Your task to perform on an android device: Open battery settings Image 0: 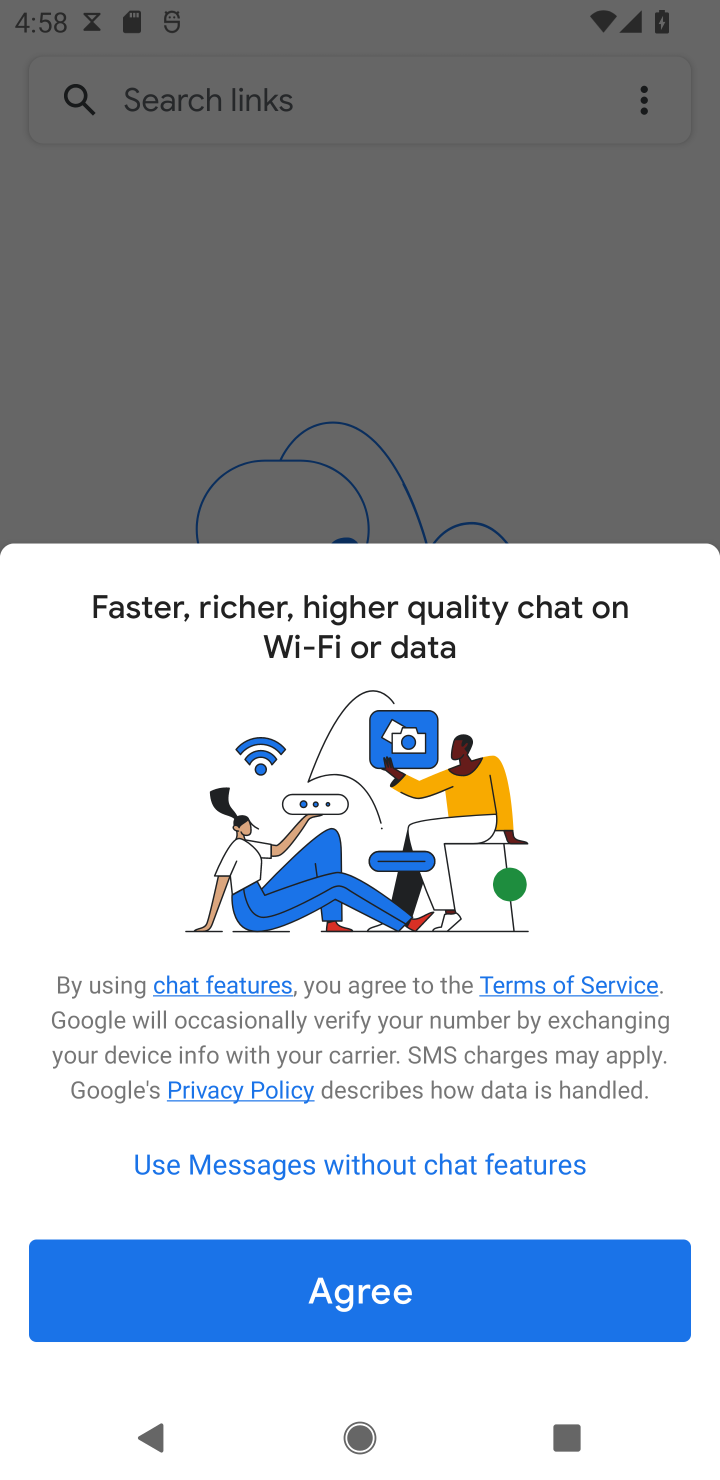
Step 0: press home button
Your task to perform on an android device: Open battery settings Image 1: 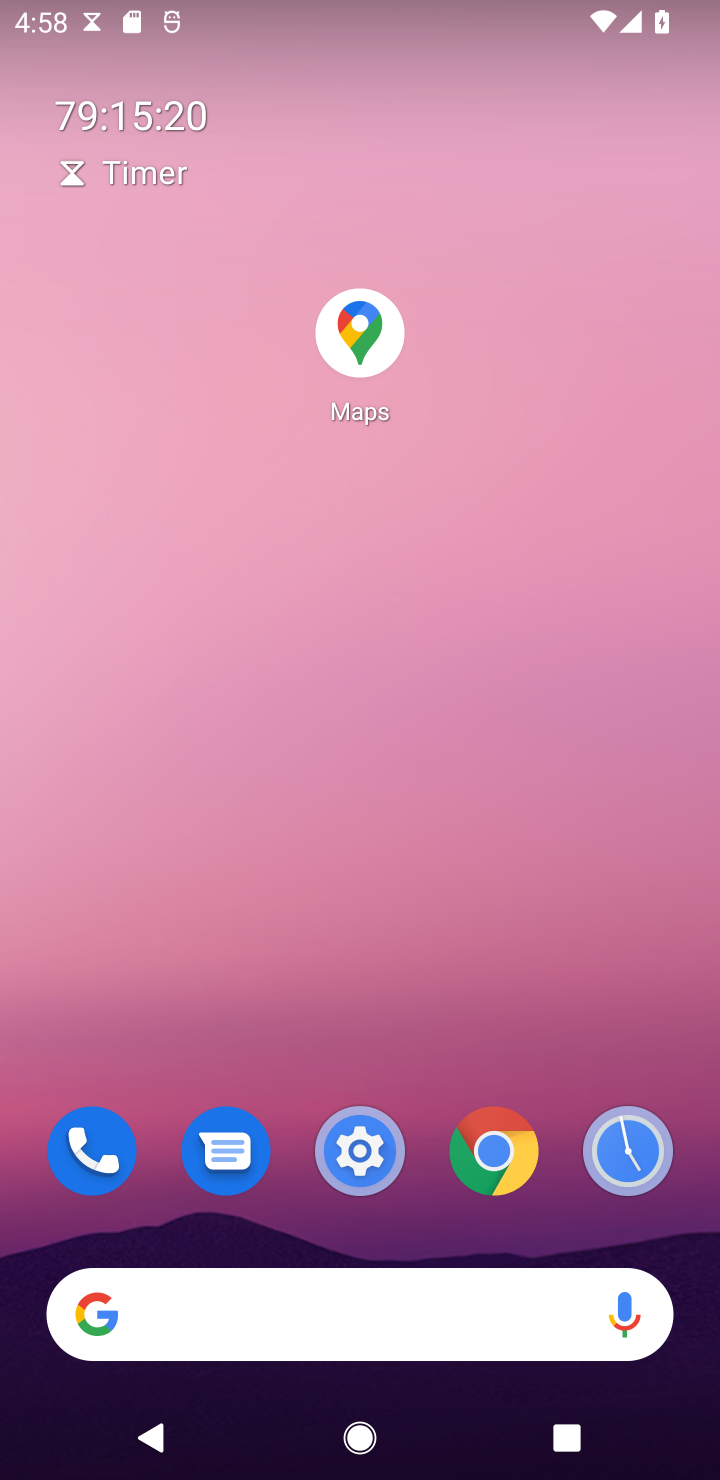
Step 1: drag from (260, 921) to (271, 348)
Your task to perform on an android device: Open battery settings Image 2: 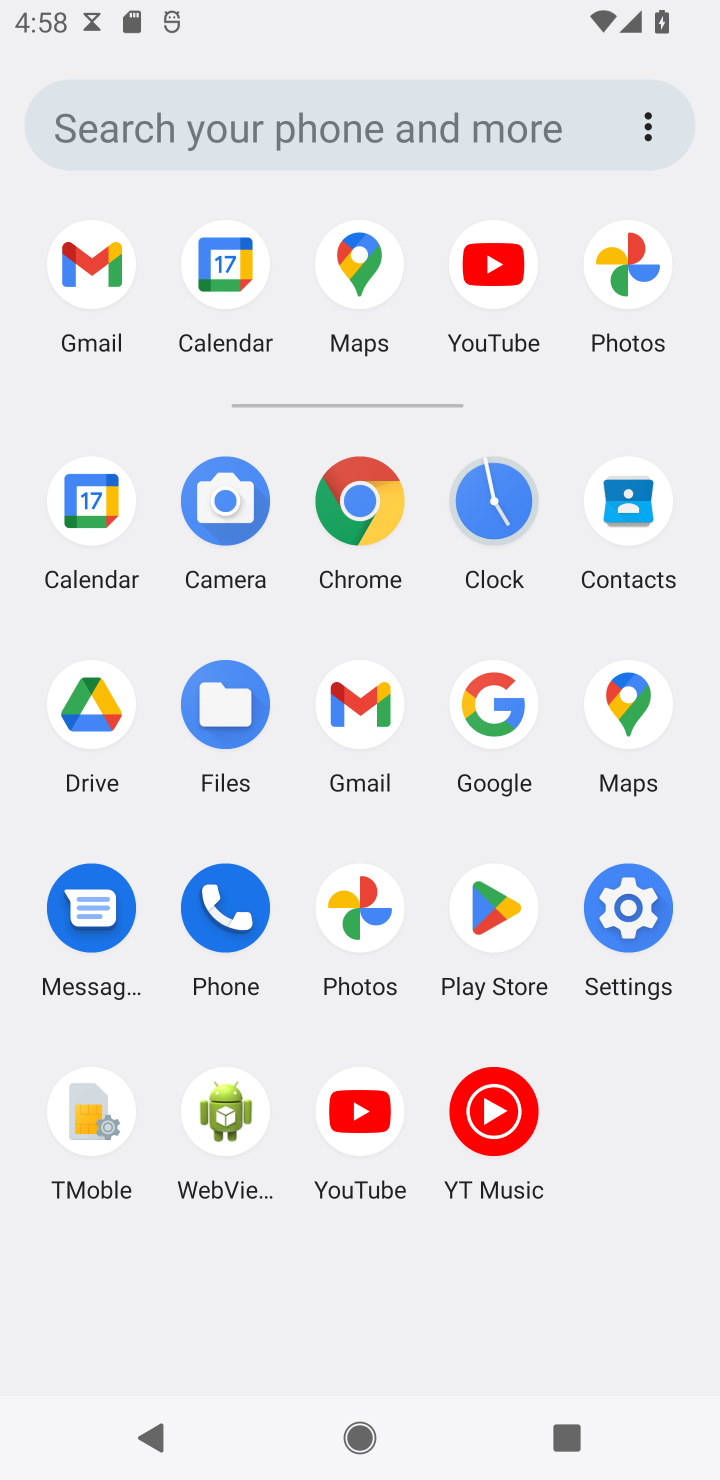
Step 2: click (627, 888)
Your task to perform on an android device: Open battery settings Image 3: 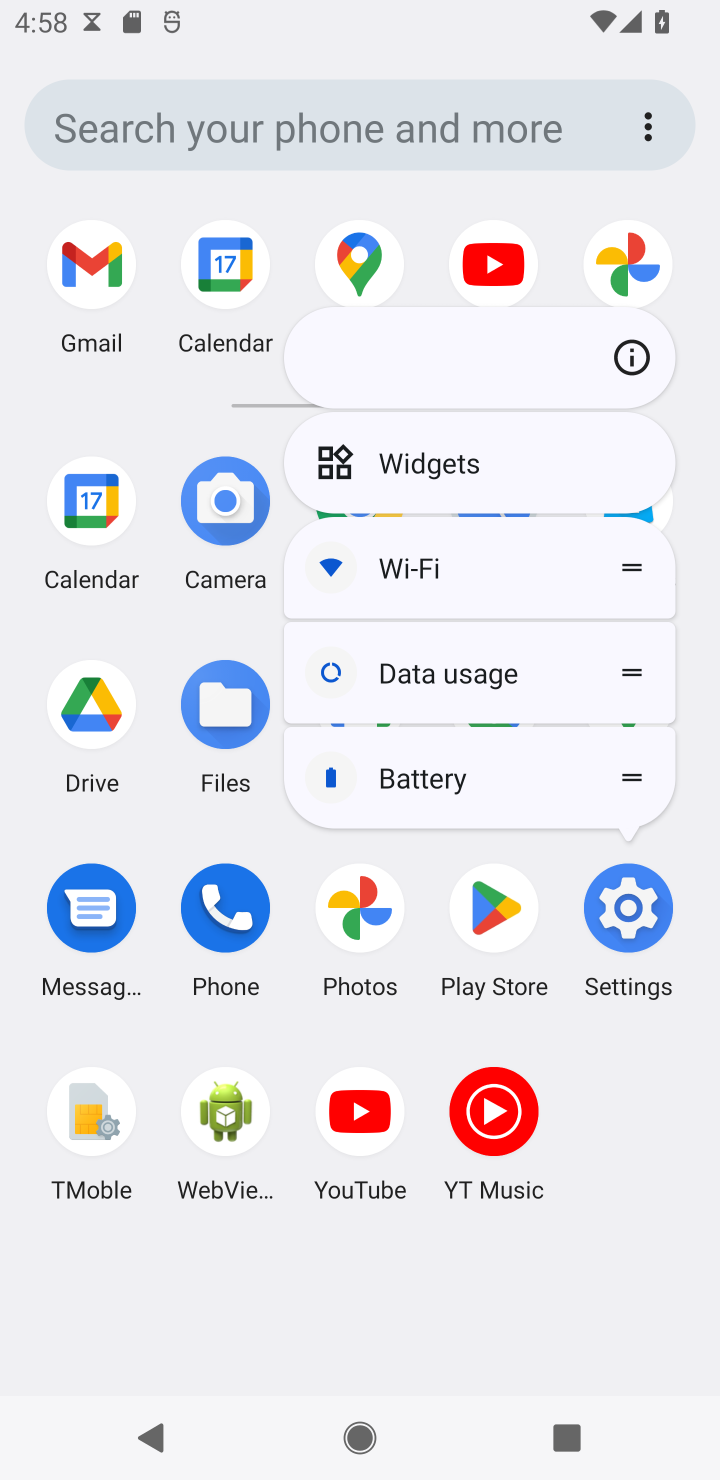
Step 3: click (636, 909)
Your task to perform on an android device: Open battery settings Image 4: 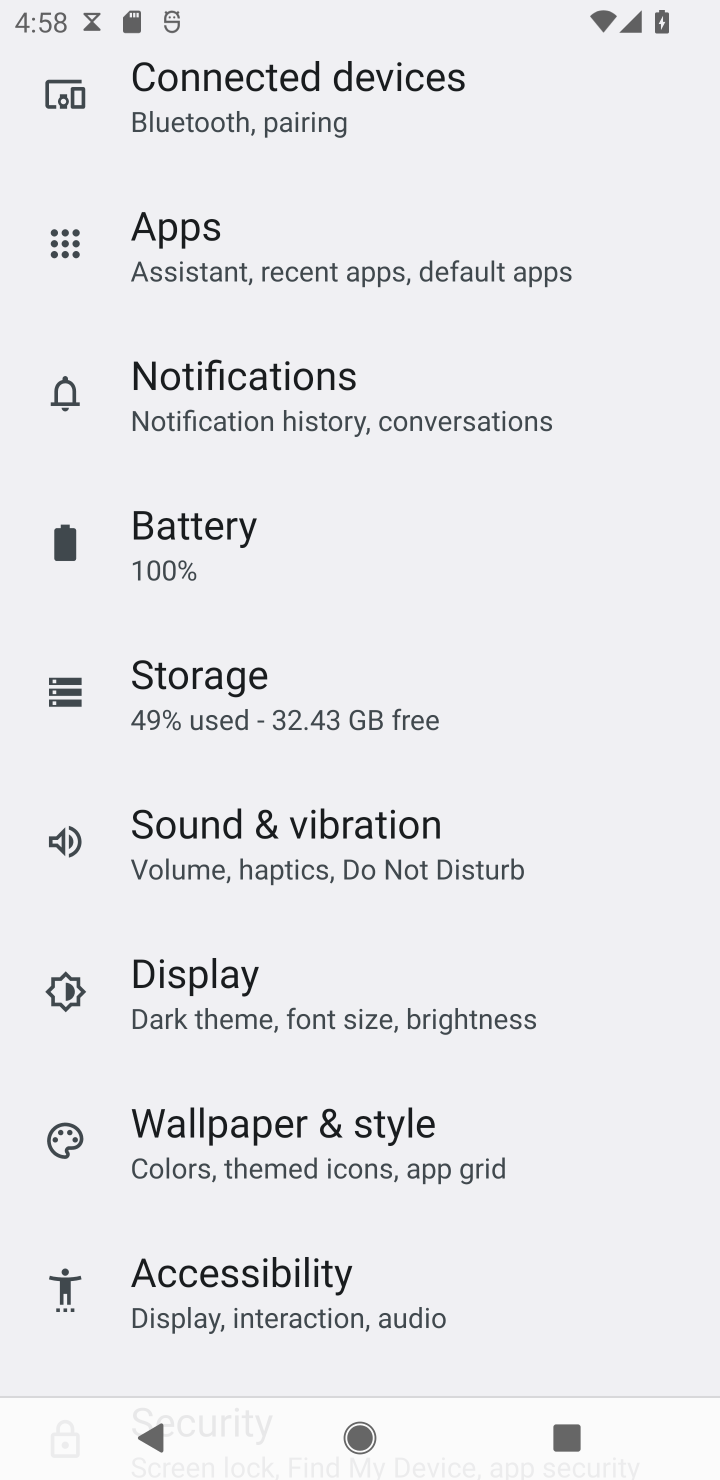
Step 4: click (205, 540)
Your task to perform on an android device: Open battery settings Image 5: 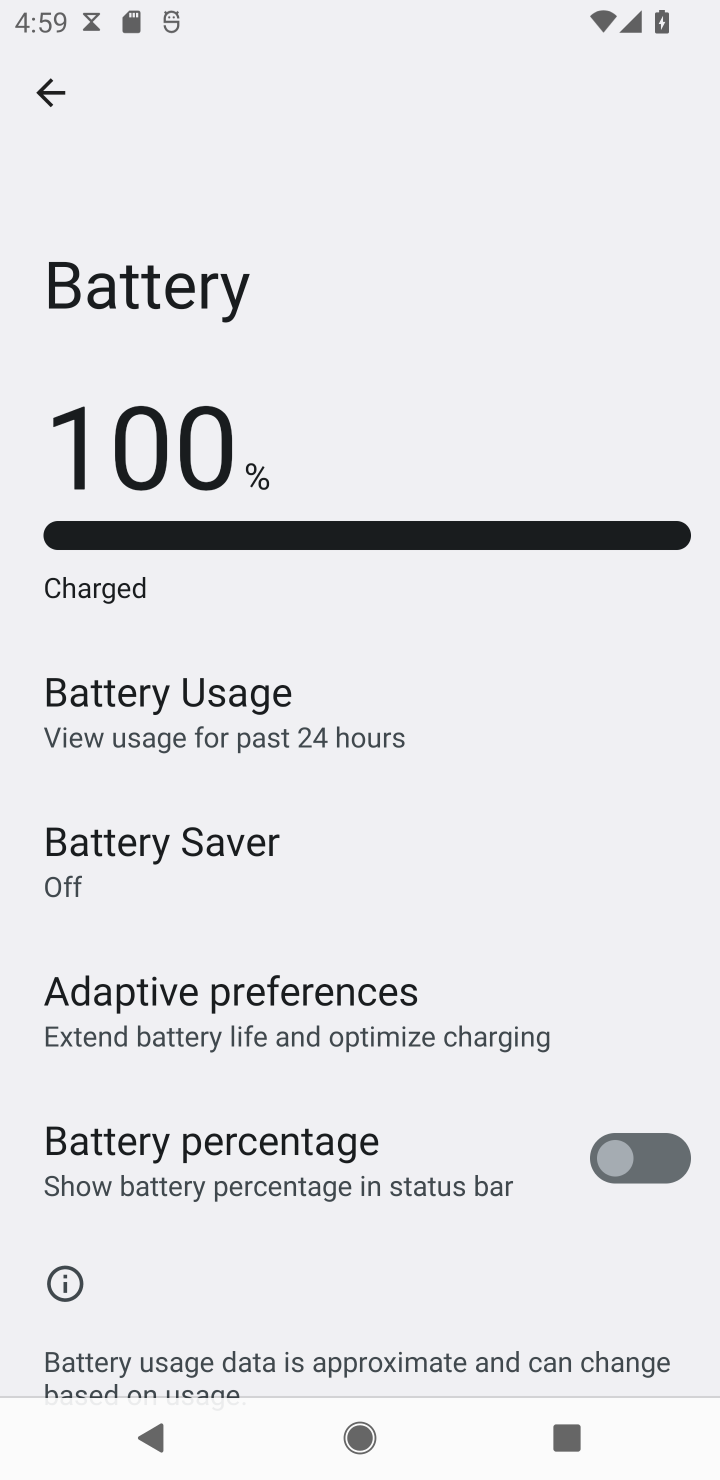
Step 5: task complete